Your task to perform on an android device: uninstall "HBO Max: Stream TV & Movies" Image 0: 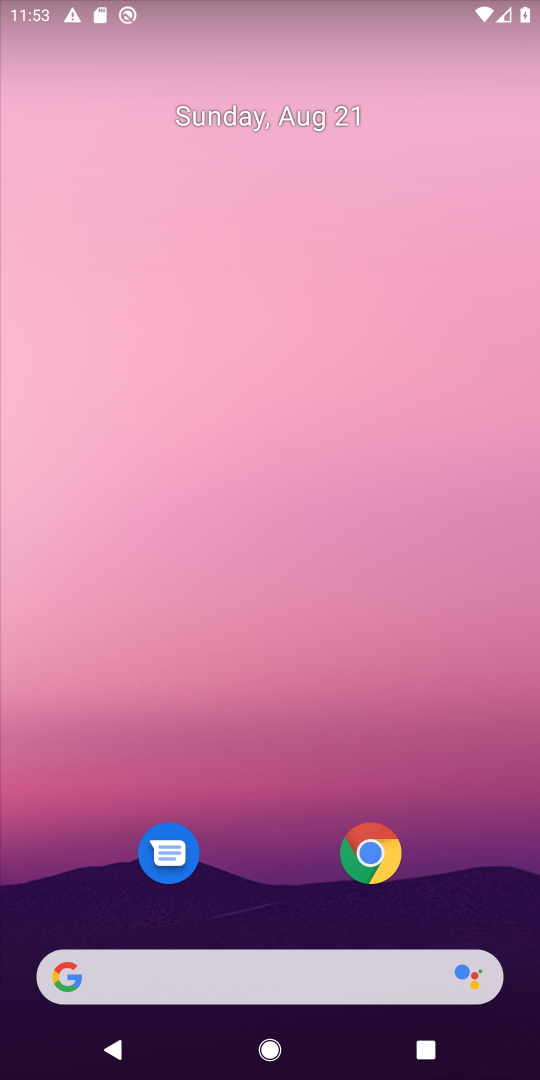
Step 0: drag from (343, 927) to (269, 338)
Your task to perform on an android device: uninstall "HBO Max: Stream TV & Movies" Image 1: 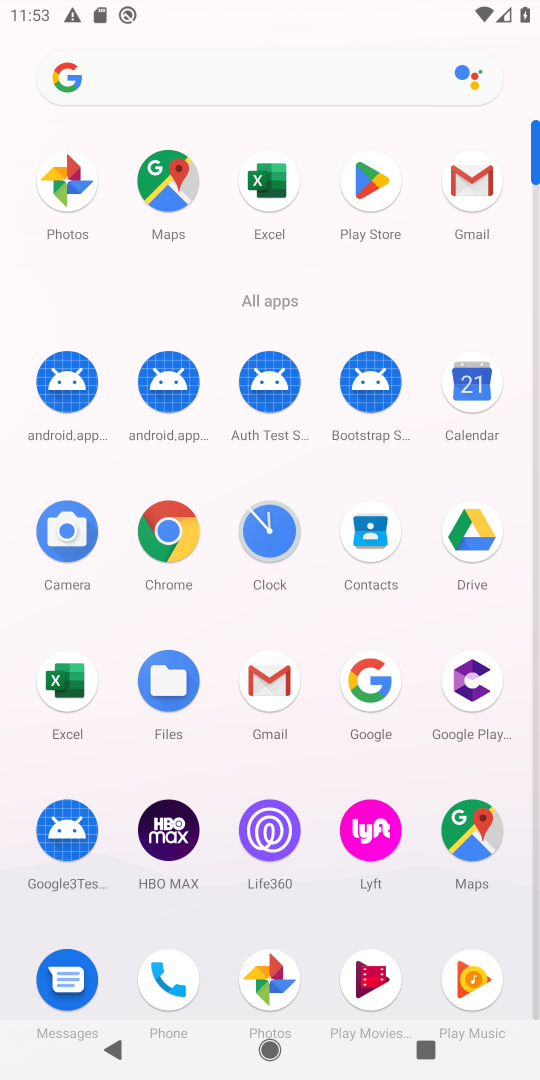
Step 1: click (353, 166)
Your task to perform on an android device: uninstall "HBO Max: Stream TV & Movies" Image 2: 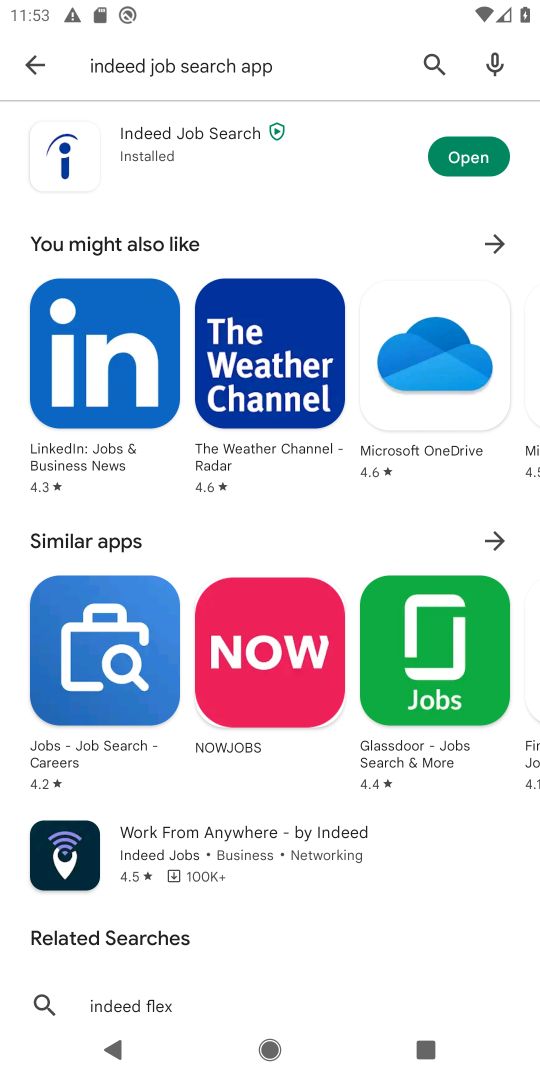
Step 2: click (51, 61)
Your task to perform on an android device: uninstall "HBO Max: Stream TV & Movies" Image 3: 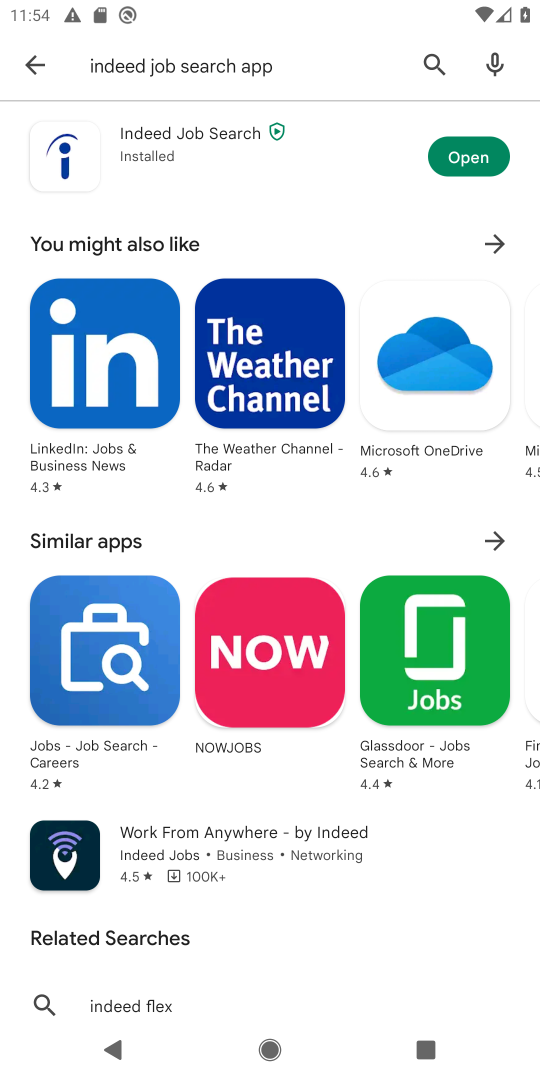
Step 3: click (38, 58)
Your task to perform on an android device: uninstall "HBO Max: Stream TV & Movies" Image 4: 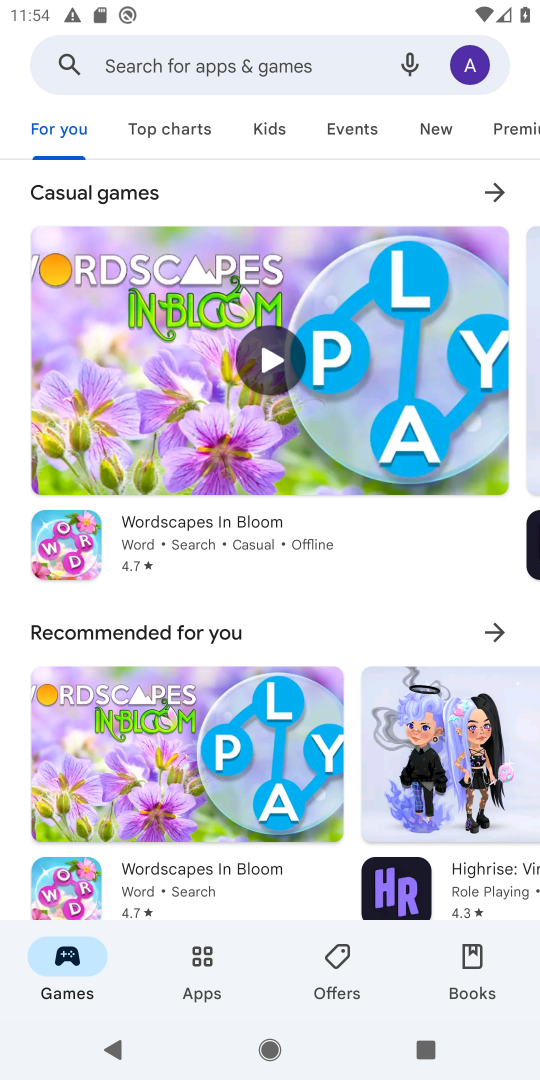
Step 4: click (226, 54)
Your task to perform on an android device: uninstall "HBO Max: Stream TV & Movies" Image 5: 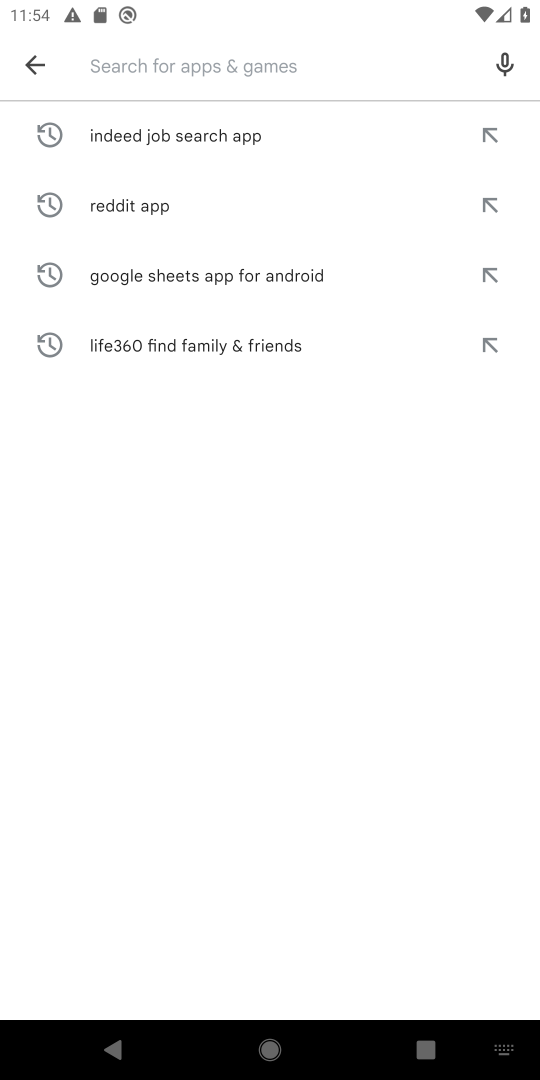
Step 5: type "HBO Max: Stream TV & Movies"
Your task to perform on an android device: uninstall "HBO Max: Stream TV & Movies" Image 6: 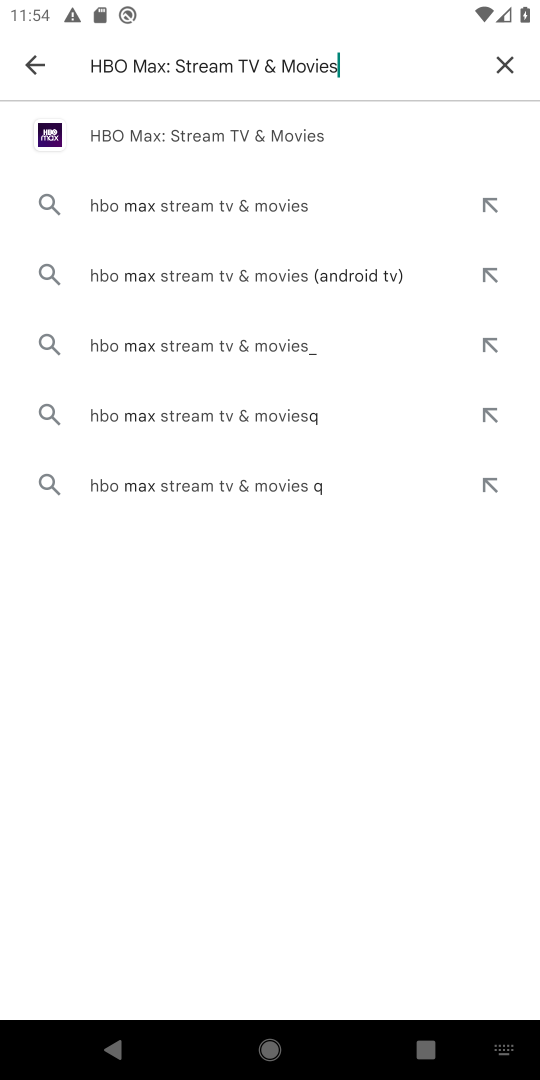
Step 6: click (290, 116)
Your task to perform on an android device: uninstall "HBO Max: Stream TV & Movies" Image 7: 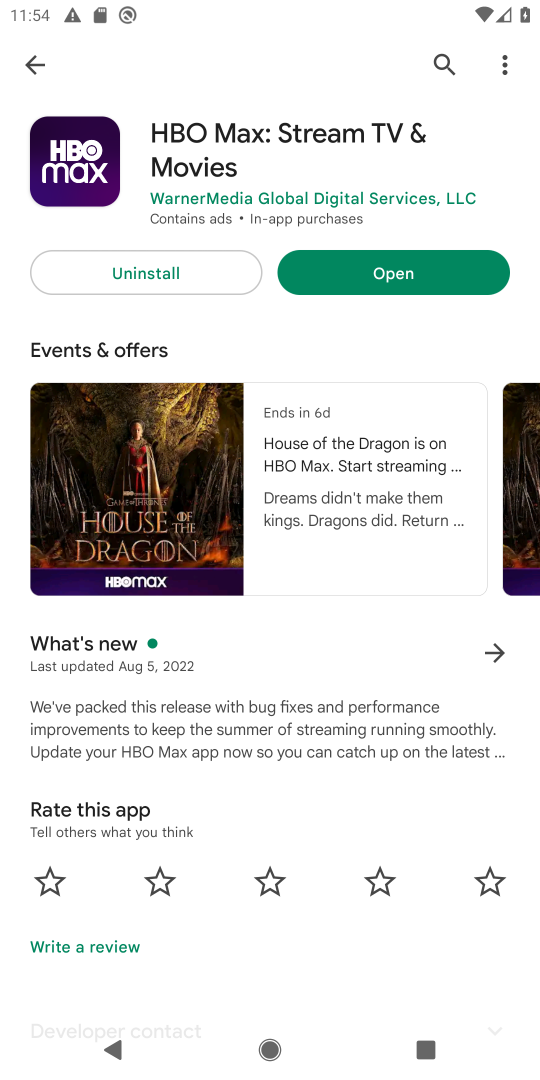
Step 7: click (172, 260)
Your task to perform on an android device: uninstall "HBO Max: Stream TV & Movies" Image 8: 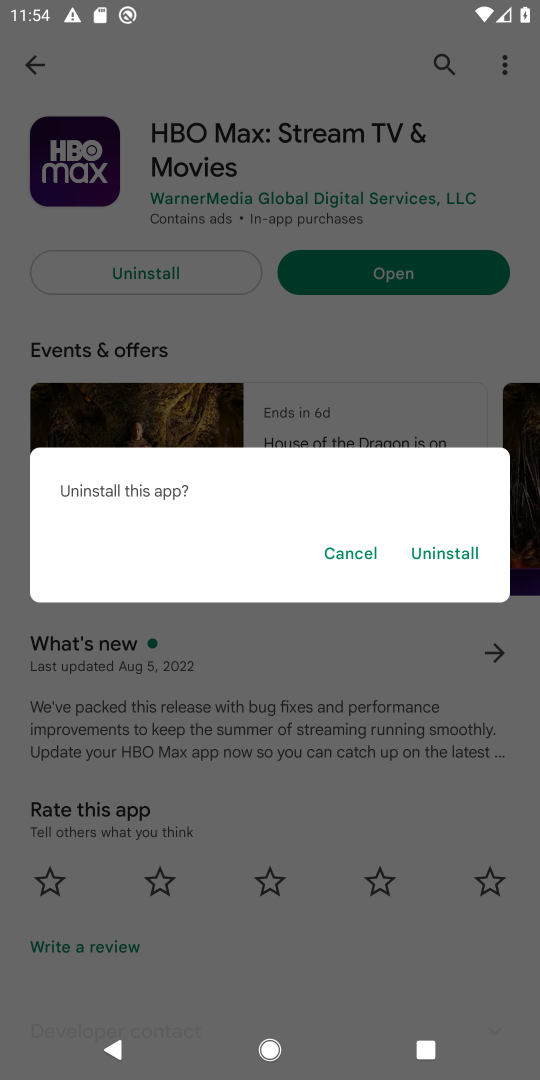
Step 8: click (432, 549)
Your task to perform on an android device: uninstall "HBO Max: Stream TV & Movies" Image 9: 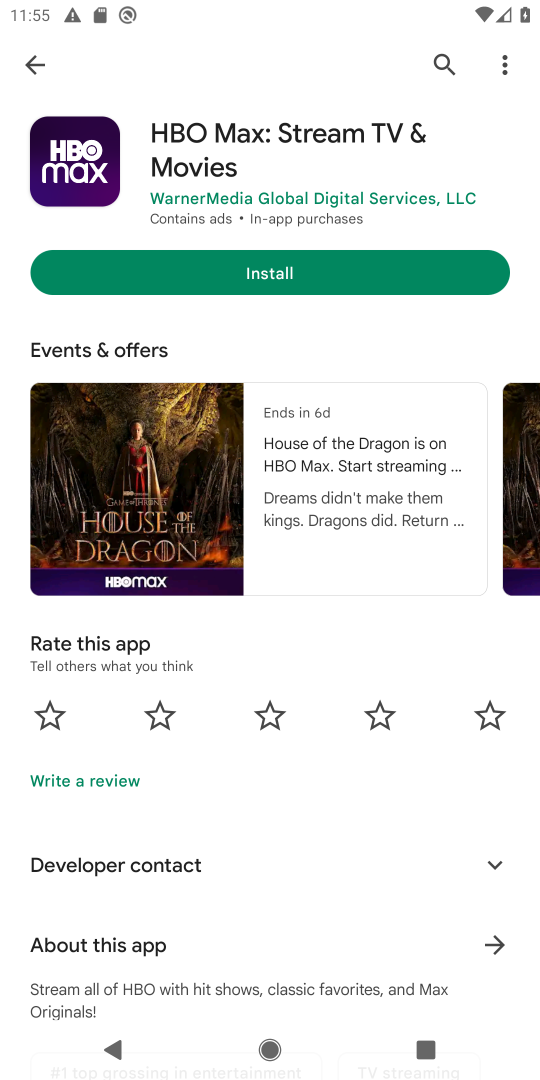
Step 9: task complete